Your task to perform on an android device: see tabs open on other devices in the chrome app Image 0: 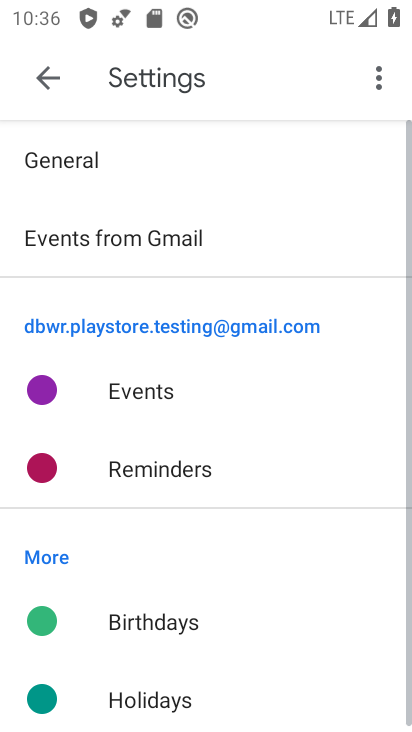
Step 0: drag from (370, 593) to (277, 180)
Your task to perform on an android device: see tabs open on other devices in the chrome app Image 1: 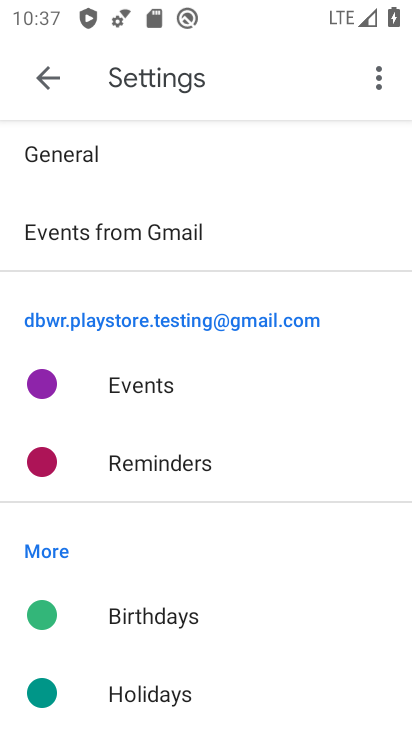
Step 1: press home button
Your task to perform on an android device: see tabs open on other devices in the chrome app Image 2: 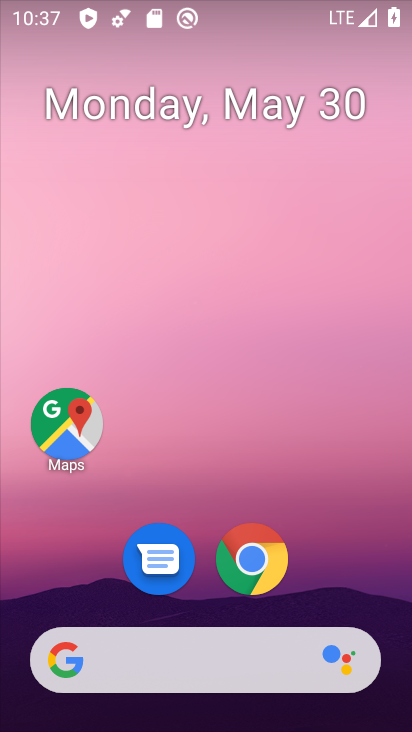
Step 2: drag from (376, 600) to (266, 268)
Your task to perform on an android device: see tabs open on other devices in the chrome app Image 3: 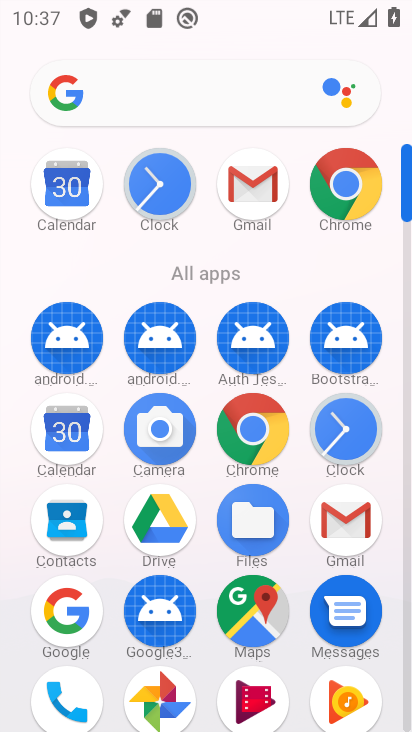
Step 3: click (363, 184)
Your task to perform on an android device: see tabs open on other devices in the chrome app Image 4: 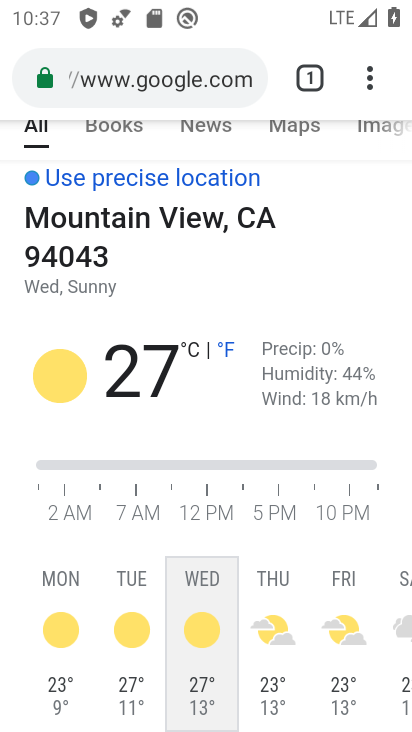
Step 4: click (369, 83)
Your task to perform on an android device: see tabs open on other devices in the chrome app Image 5: 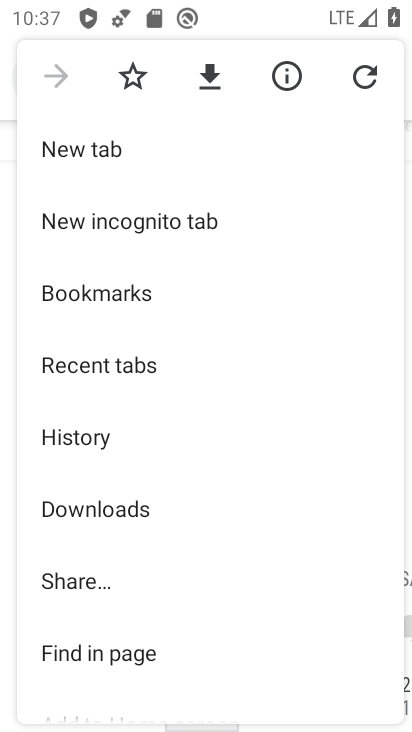
Step 5: click (147, 364)
Your task to perform on an android device: see tabs open on other devices in the chrome app Image 6: 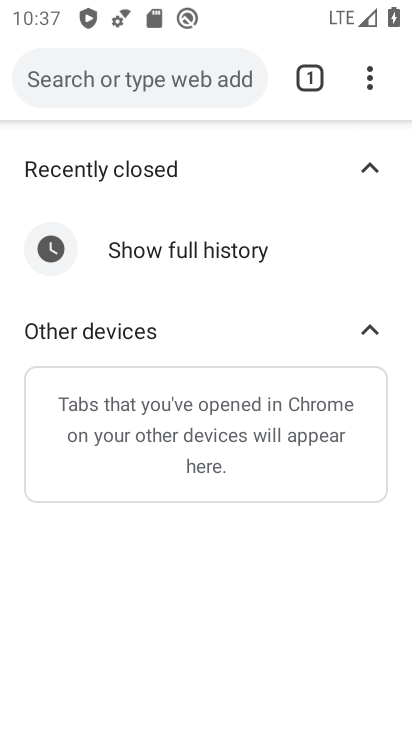
Step 6: task complete